Your task to perform on an android device: open sync settings in chrome Image 0: 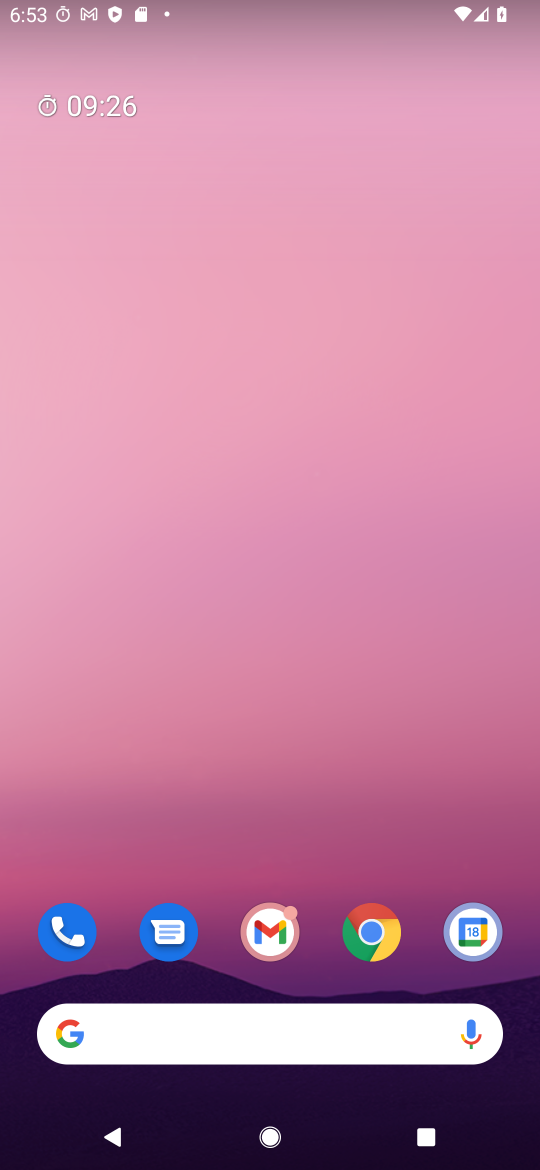
Step 0: drag from (340, 849) to (373, 0)
Your task to perform on an android device: open sync settings in chrome Image 1: 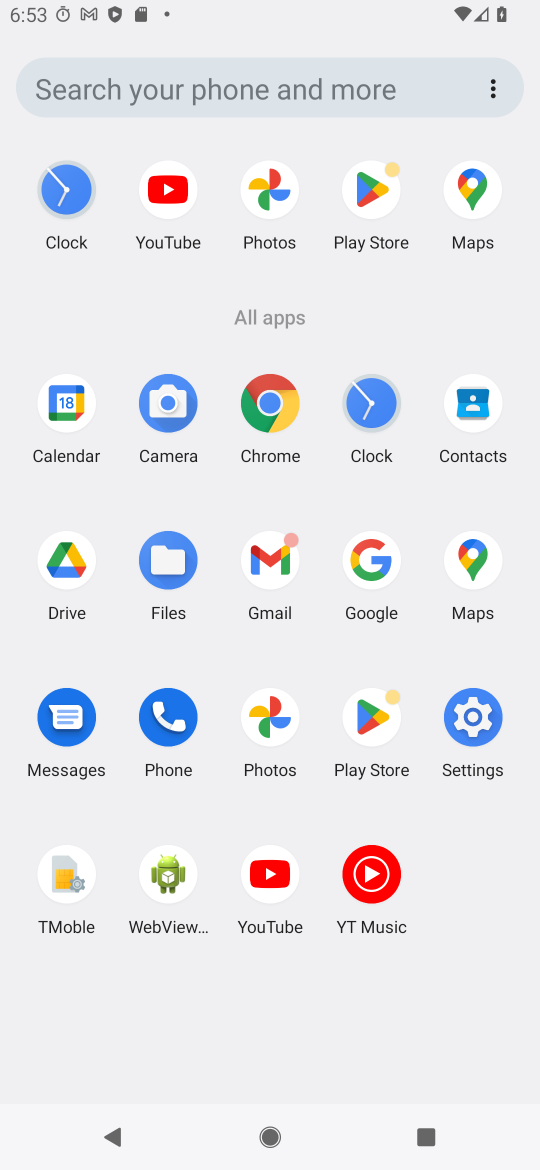
Step 1: click (266, 423)
Your task to perform on an android device: open sync settings in chrome Image 2: 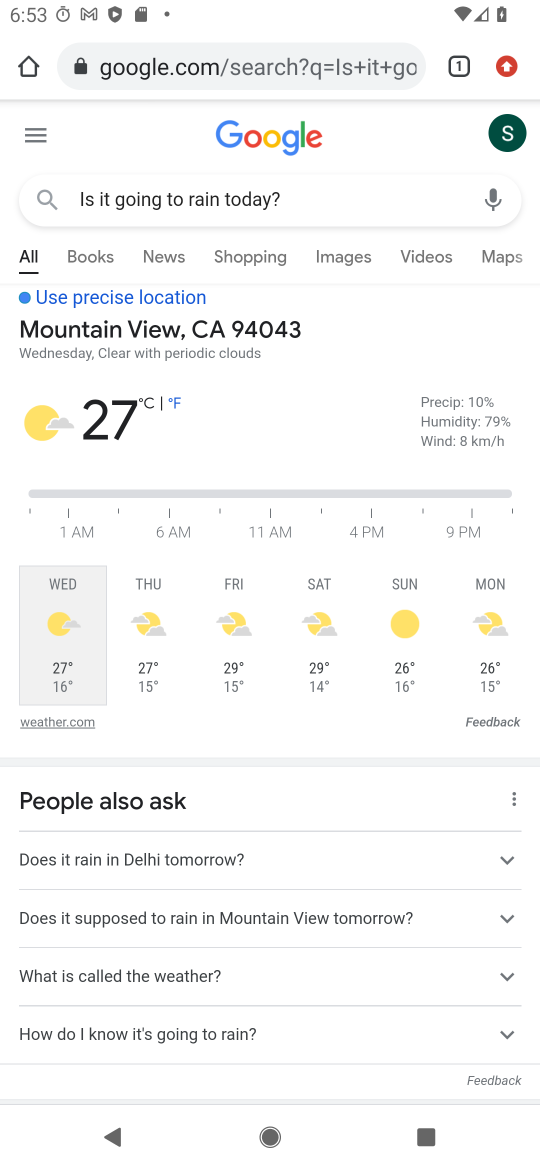
Step 2: click (497, 68)
Your task to perform on an android device: open sync settings in chrome Image 3: 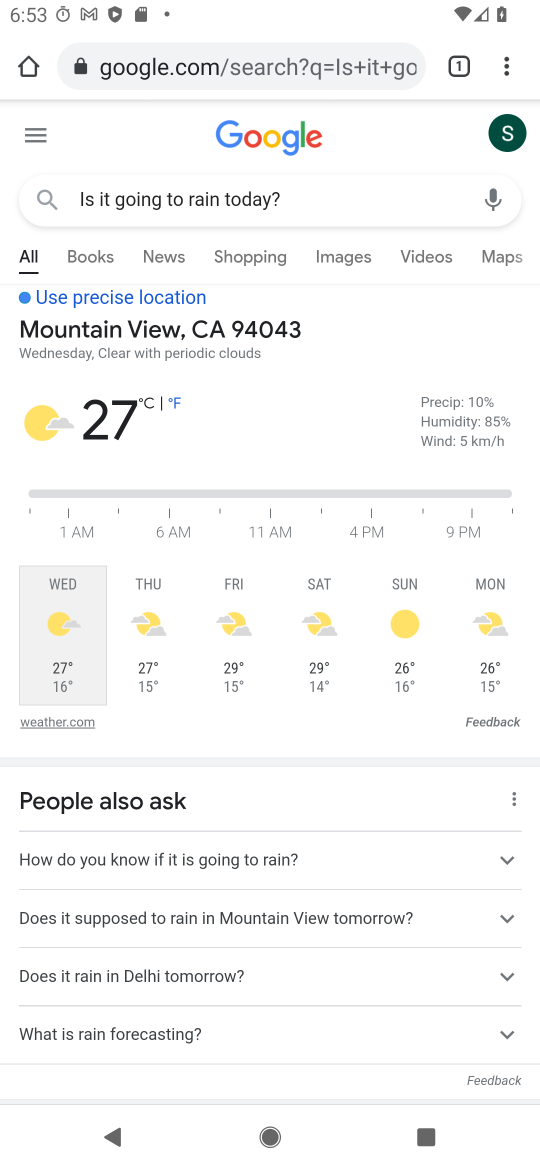
Step 3: drag from (497, 68) to (344, 871)
Your task to perform on an android device: open sync settings in chrome Image 4: 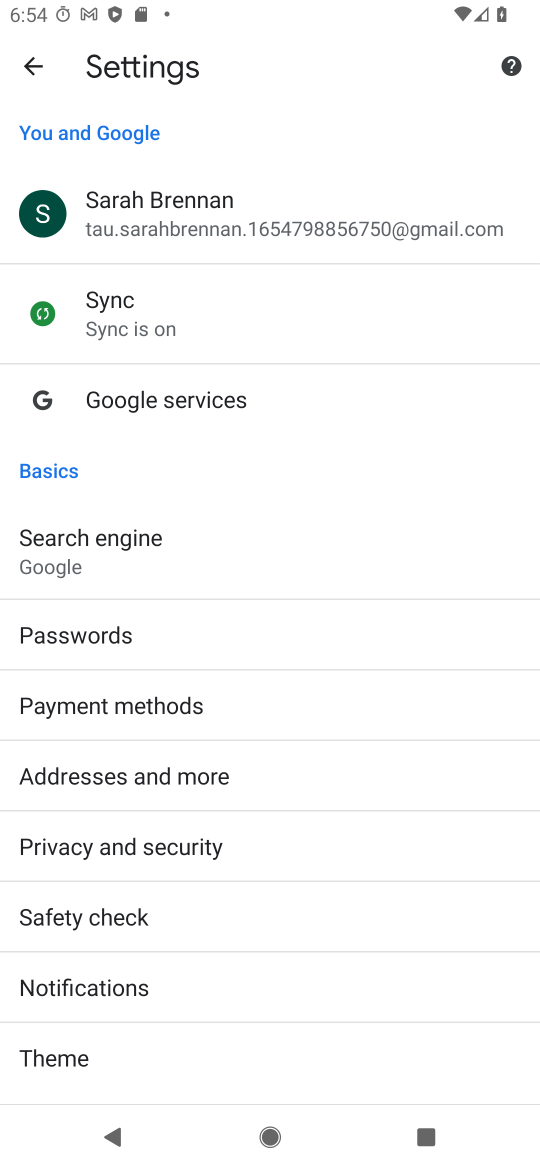
Step 4: click (87, 308)
Your task to perform on an android device: open sync settings in chrome Image 5: 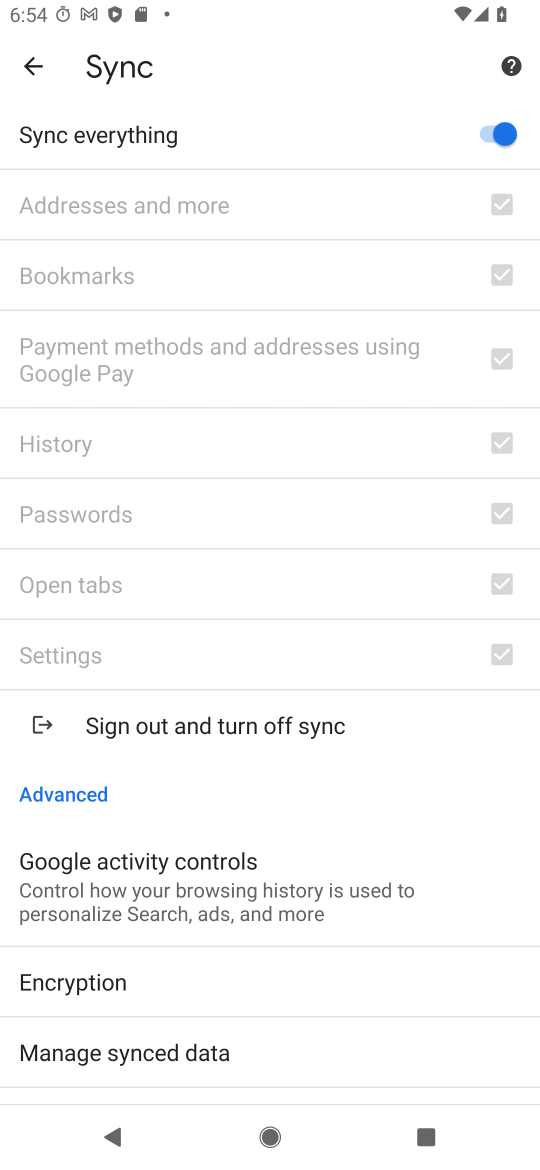
Step 5: task complete